Your task to perform on an android device: refresh tabs in the chrome app Image 0: 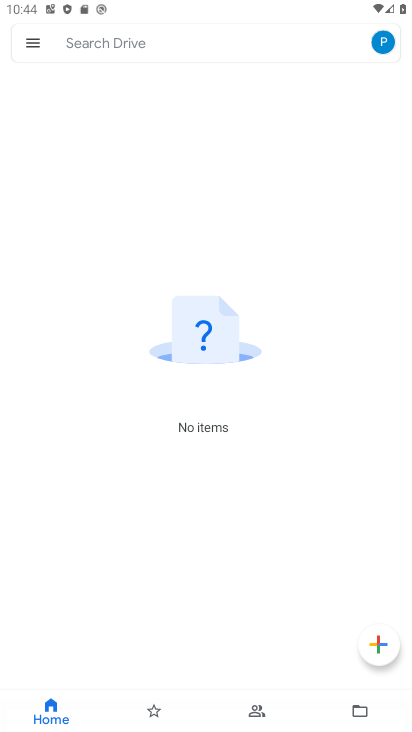
Step 0: press home button
Your task to perform on an android device: refresh tabs in the chrome app Image 1: 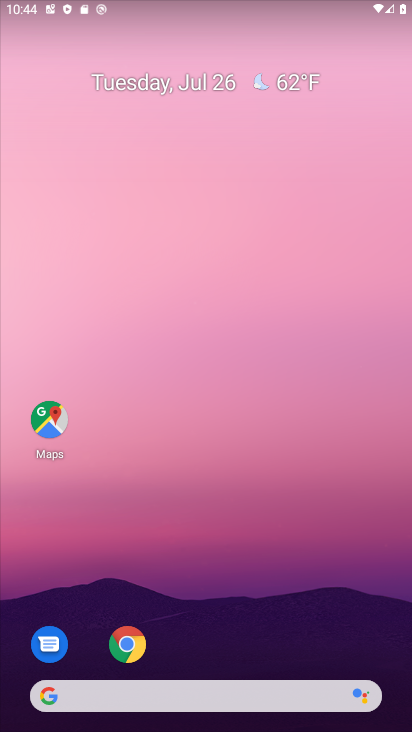
Step 1: click (124, 641)
Your task to perform on an android device: refresh tabs in the chrome app Image 2: 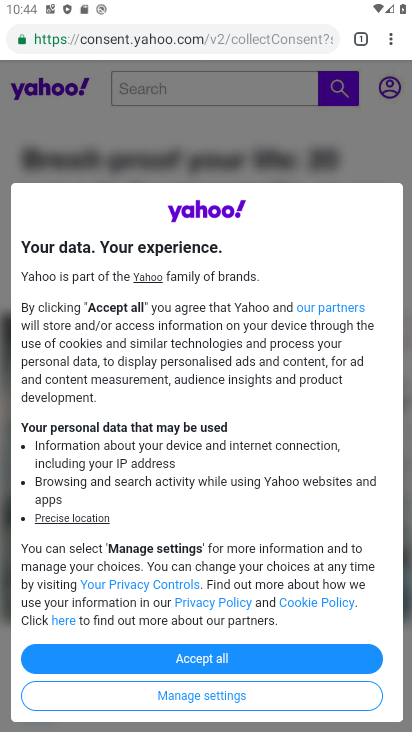
Step 2: click (393, 35)
Your task to perform on an android device: refresh tabs in the chrome app Image 3: 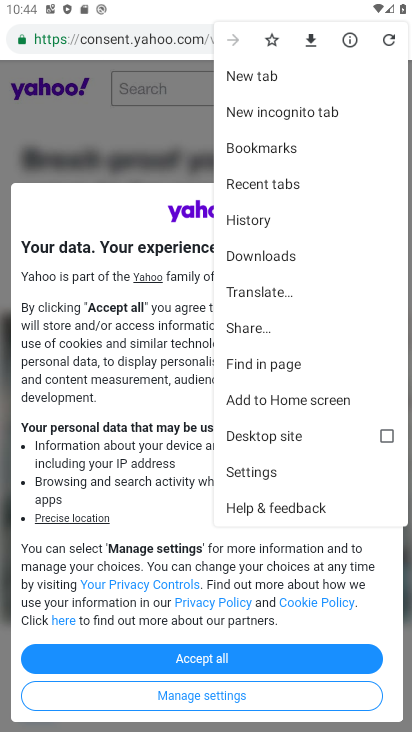
Step 3: click (398, 35)
Your task to perform on an android device: refresh tabs in the chrome app Image 4: 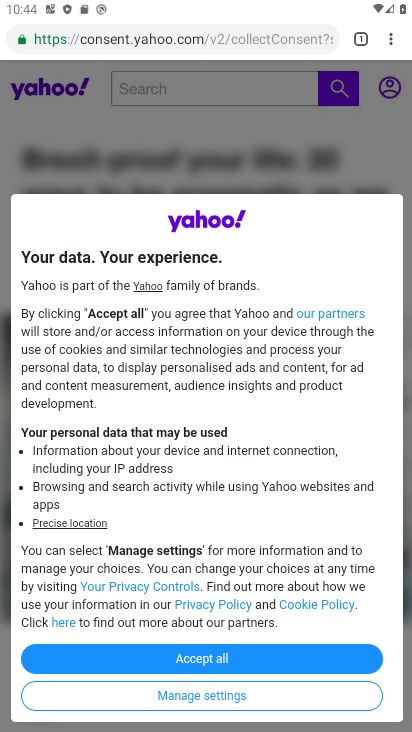
Step 4: task complete